Your task to perform on an android device: change text size in settings app Image 0: 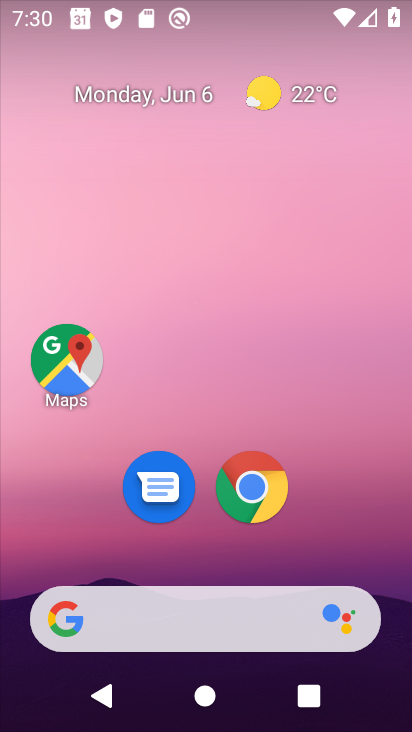
Step 0: drag from (401, 621) to (284, 93)
Your task to perform on an android device: change text size in settings app Image 1: 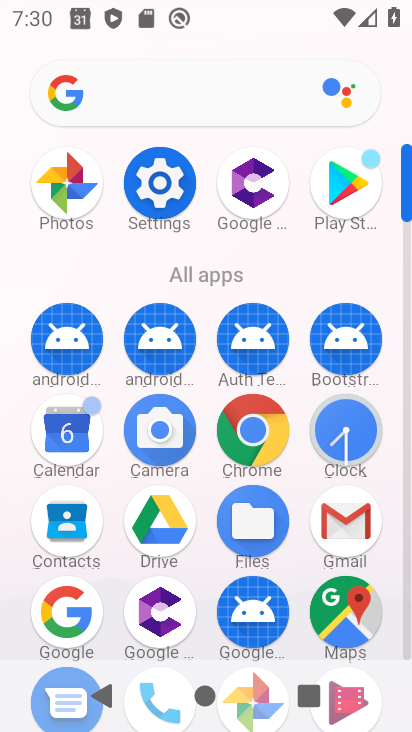
Step 1: click (160, 184)
Your task to perform on an android device: change text size in settings app Image 2: 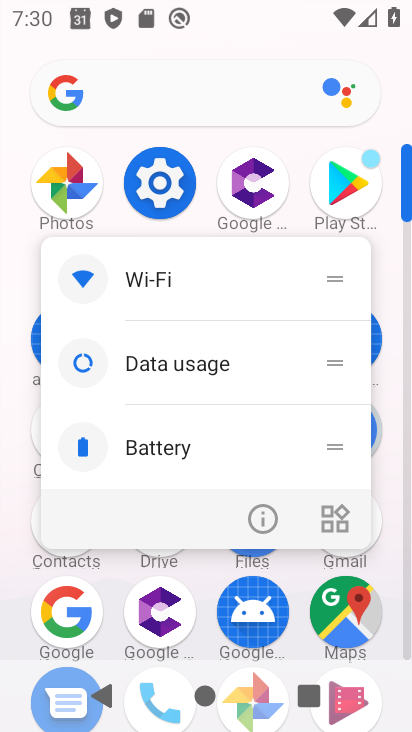
Step 2: click (160, 184)
Your task to perform on an android device: change text size in settings app Image 3: 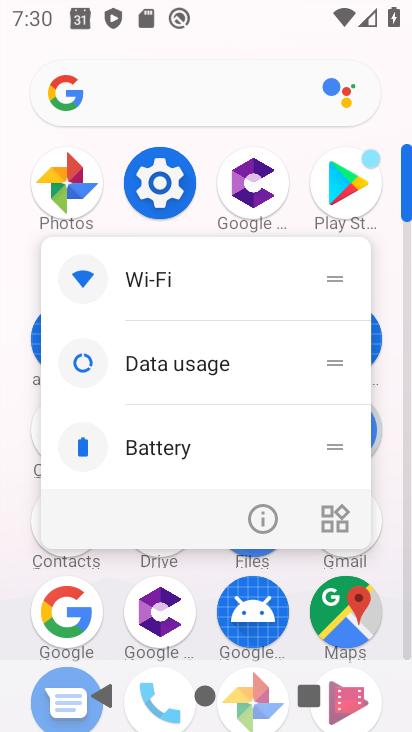
Step 3: click (160, 184)
Your task to perform on an android device: change text size in settings app Image 4: 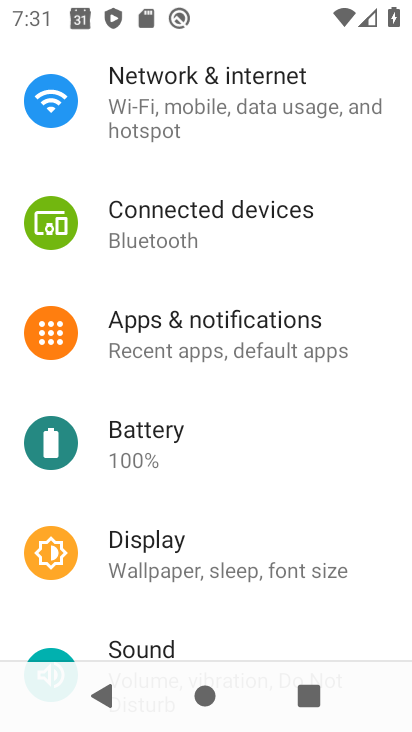
Step 4: click (205, 518)
Your task to perform on an android device: change text size in settings app Image 5: 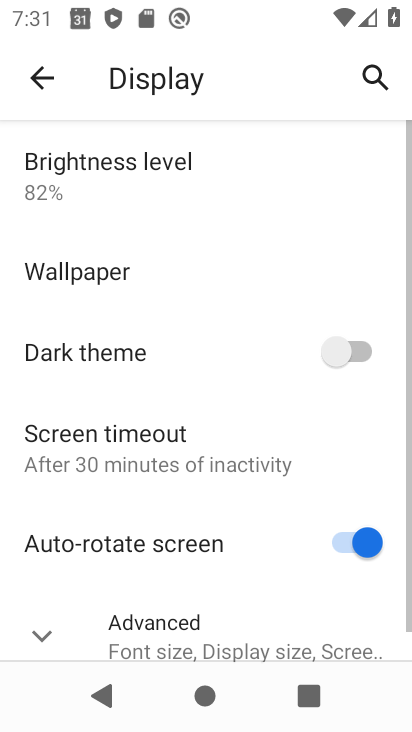
Step 5: click (189, 631)
Your task to perform on an android device: change text size in settings app Image 6: 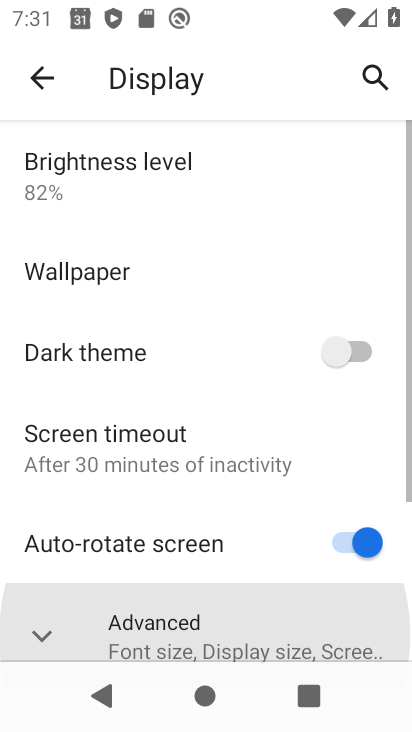
Step 6: drag from (189, 631) to (229, 117)
Your task to perform on an android device: change text size in settings app Image 7: 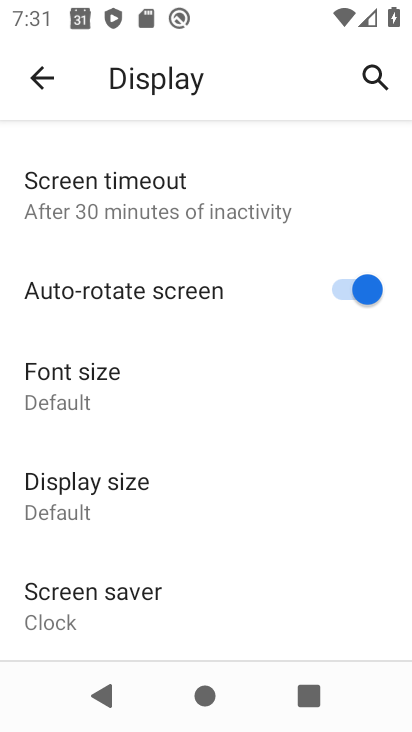
Step 7: click (95, 394)
Your task to perform on an android device: change text size in settings app Image 8: 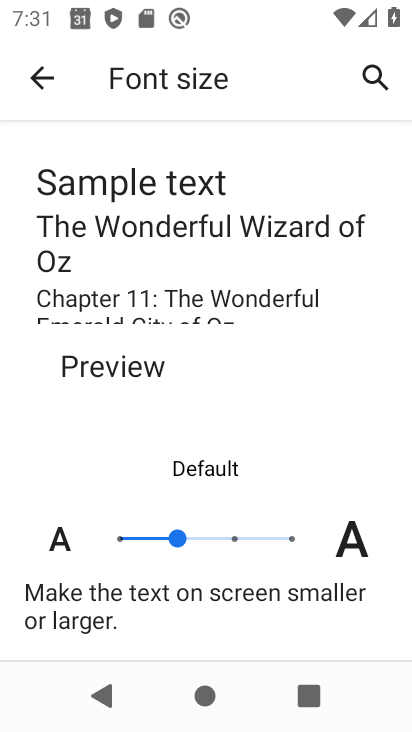
Step 8: click (235, 538)
Your task to perform on an android device: change text size in settings app Image 9: 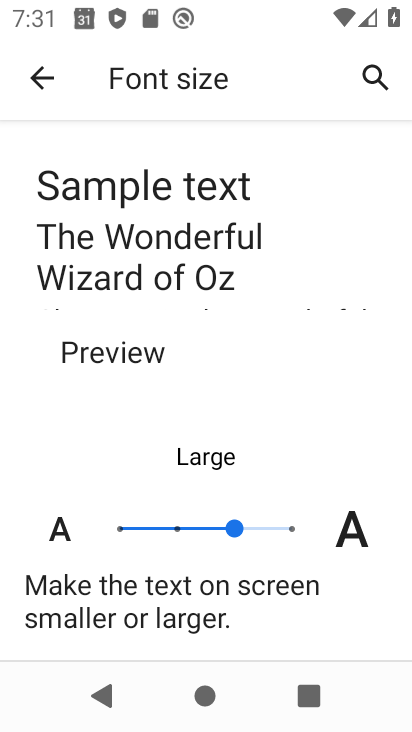
Step 9: task complete